Your task to perform on an android device: Open eBay Image 0: 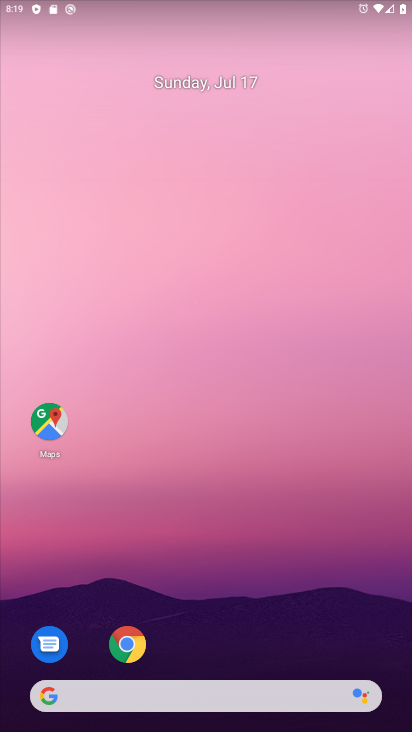
Step 0: drag from (229, 576) to (247, 83)
Your task to perform on an android device: Open eBay Image 1: 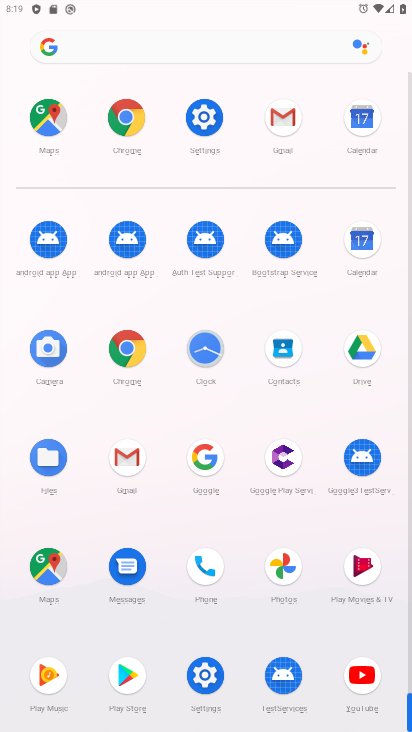
Step 1: click (125, 113)
Your task to perform on an android device: Open eBay Image 2: 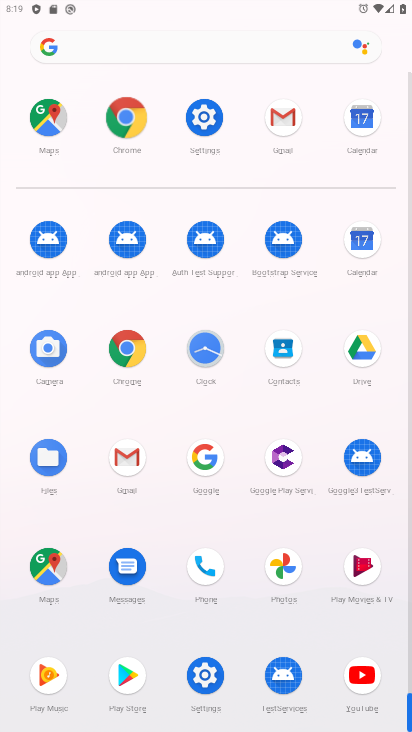
Step 2: click (129, 111)
Your task to perform on an android device: Open eBay Image 3: 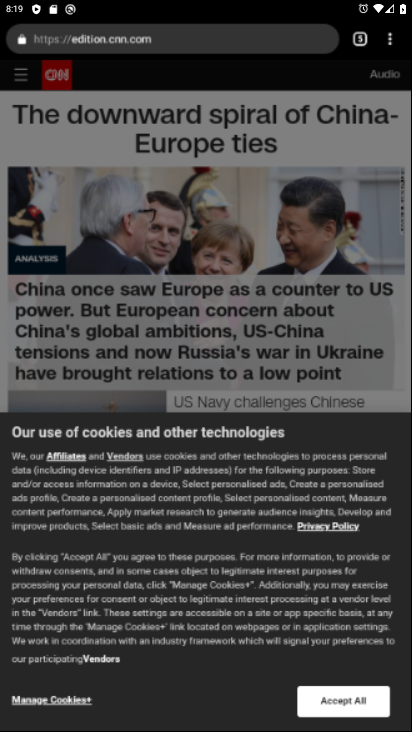
Step 3: click (143, 117)
Your task to perform on an android device: Open eBay Image 4: 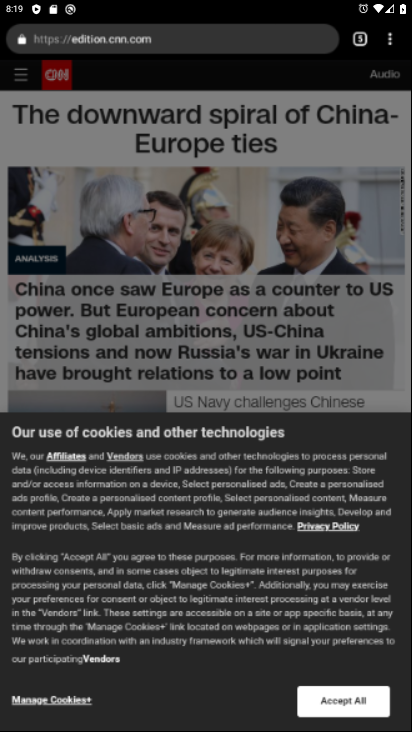
Step 4: click (143, 117)
Your task to perform on an android device: Open eBay Image 5: 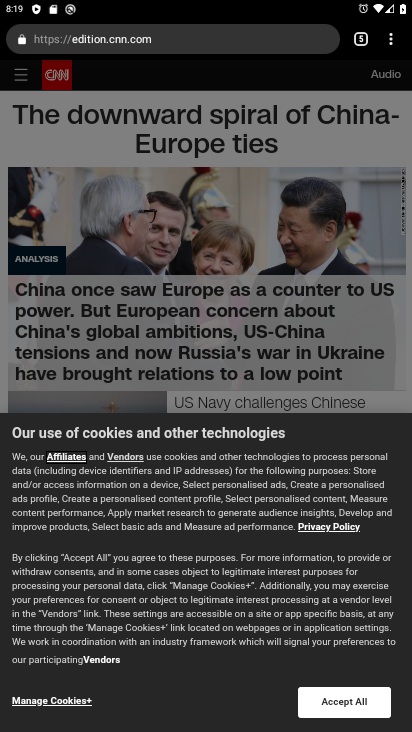
Step 5: drag from (386, 52) to (251, 447)
Your task to perform on an android device: Open eBay Image 6: 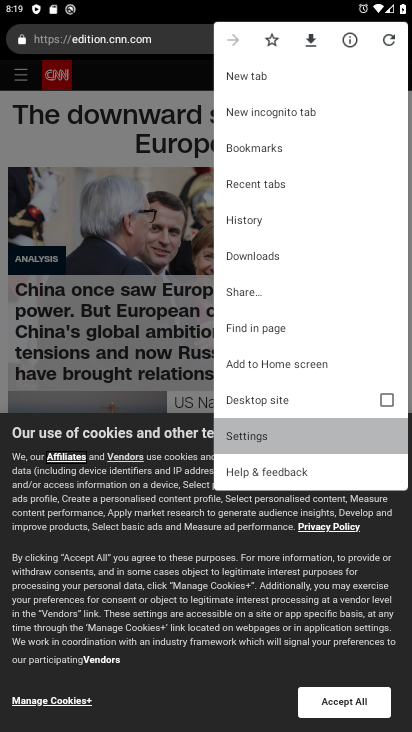
Step 6: click (247, 439)
Your task to perform on an android device: Open eBay Image 7: 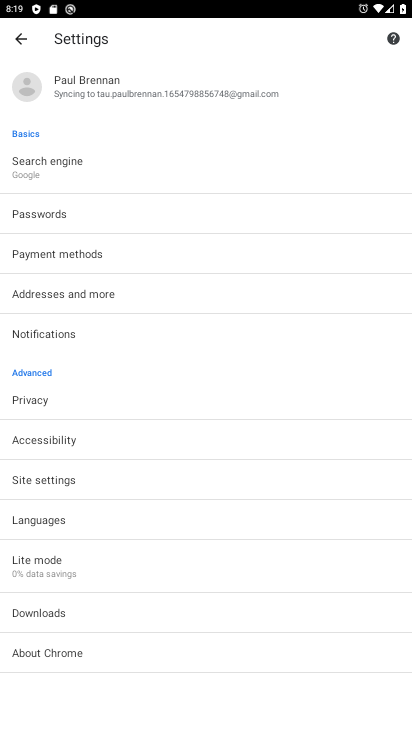
Step 7: click (11, 33)
Your task to perform on an android device: Open eBay Image 8: 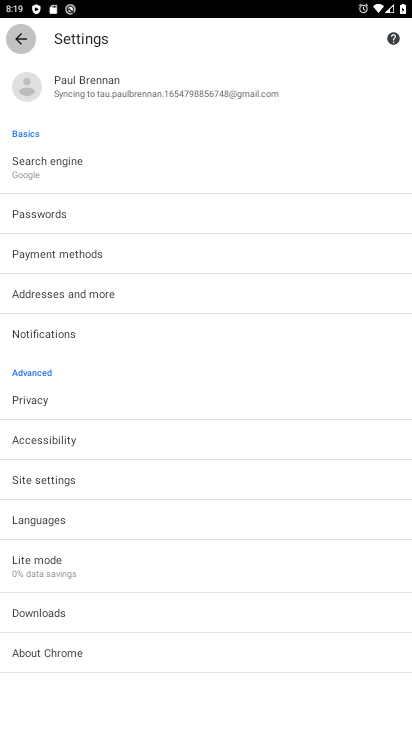
Step 8: click (11, 33)
Your task to perform on an android device: Open eBay Image 9: 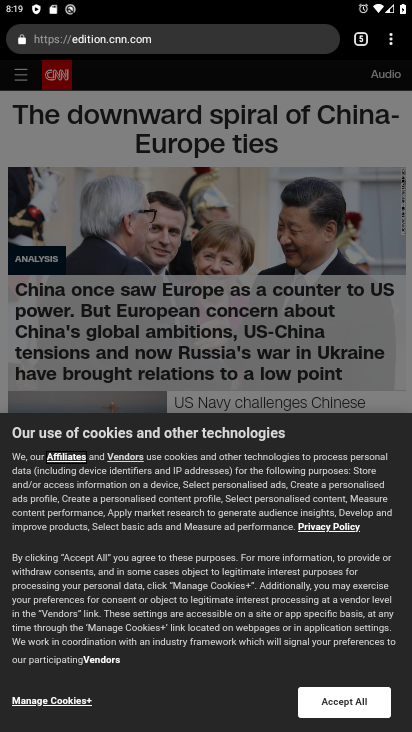
Step 9: drag from (385, 39) to (266, 81)
Your task to perform on an android device: Open eBay Image 10: 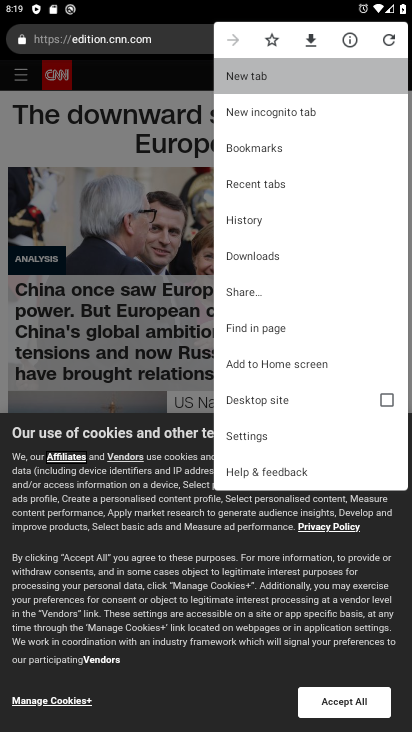
Step 10: click (269, 86)
Your task to perform on an android device: Open eBay Image 11: 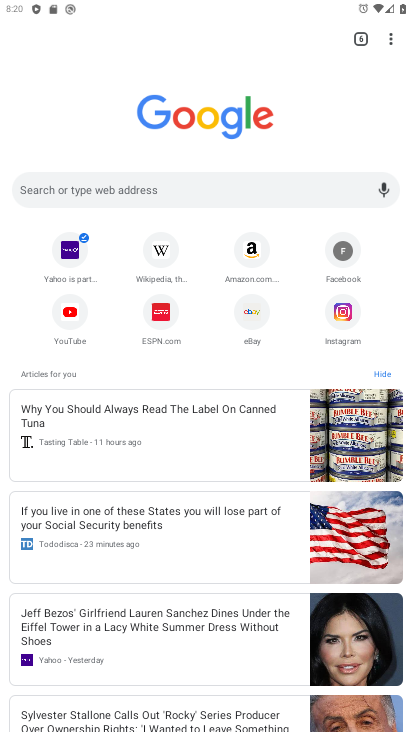
Step 11: click (236, 317)
Your task to perform on an android device: Open eBay Image 12: 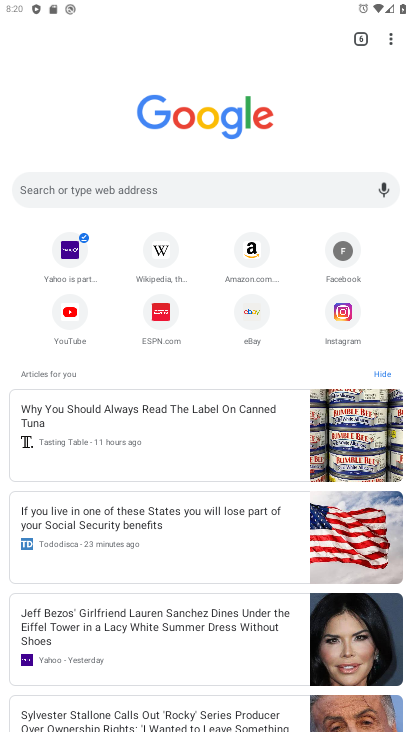
Step 12: click (243, 314)
Your task to perform on an android device: Open eBay Image 13: 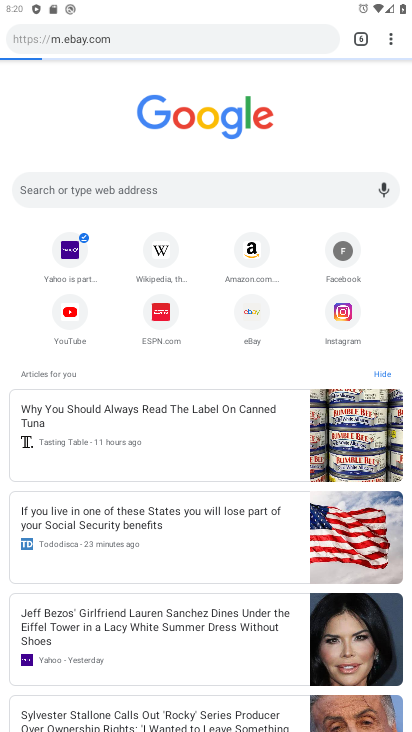
Step 13: click (246, 316)
Your task to perform on an android device: Open eBay Image 14: 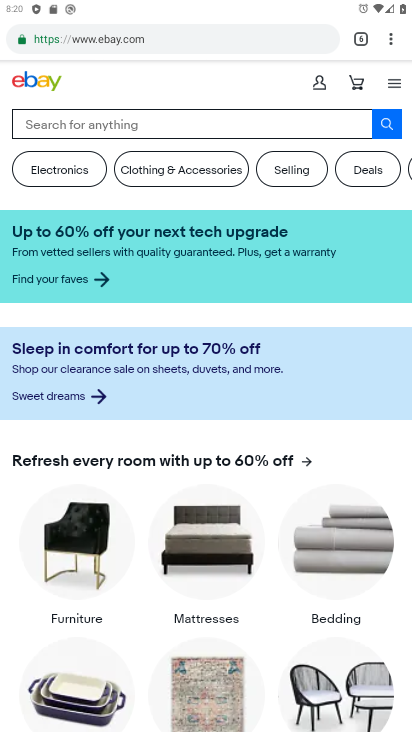
Step 14: task complete